Your task to perform on an android device: delete a single message in the gmail app Image 0: 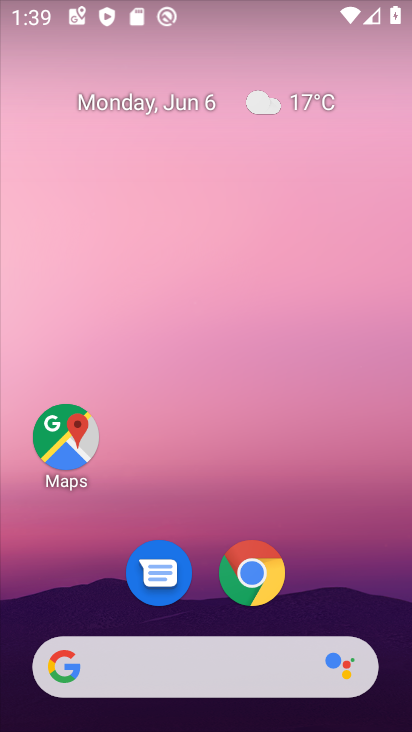
Step 0: drag from (215, 609) to (240, 78)
Your task to perform on an android device: delete a single message in the gmail app Image 1: 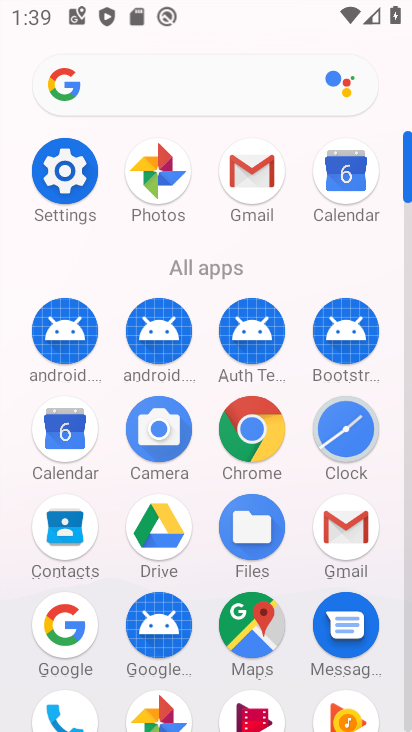
Step 1: click (255, 160)
Your task to perform on an android device: delete a single message in the gmail app Image 2: 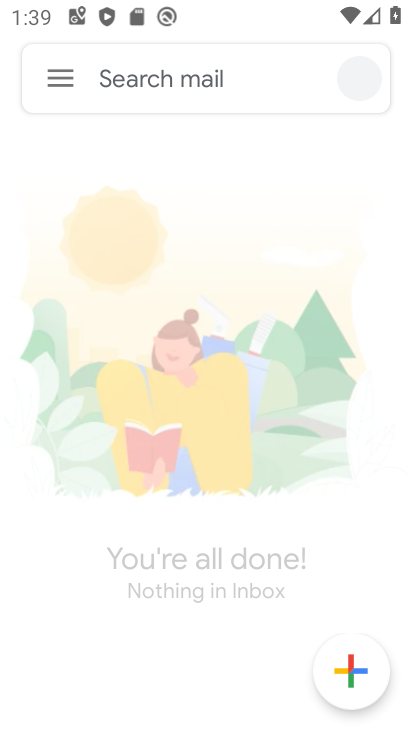
Step 2: click (55, 87)
Your task to perform on an android device: delete a single message in the gmail app Image 3: 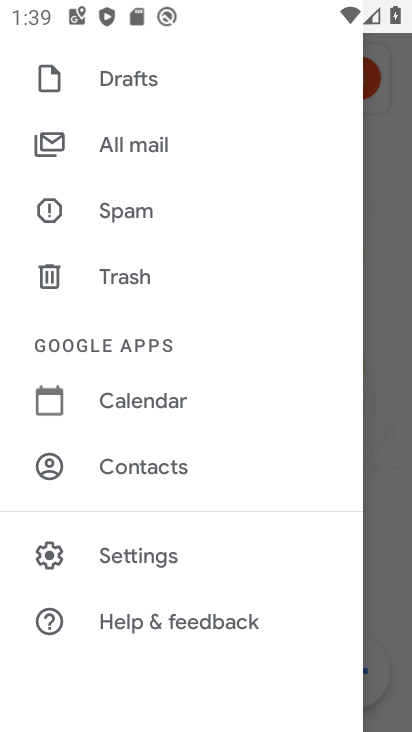
Step 3: click (102, 139)
Your task to perform on an android device: delete a single message in the gmail app Image 4: 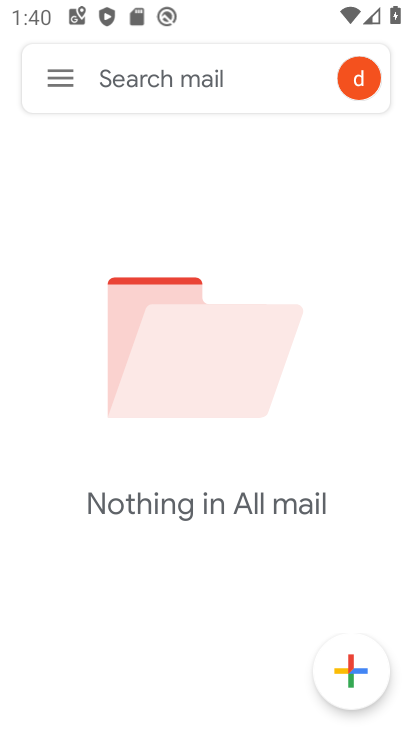
Step 4: task complete